Your task to perform on an android device: allow cookies in the chrome app Image 0: 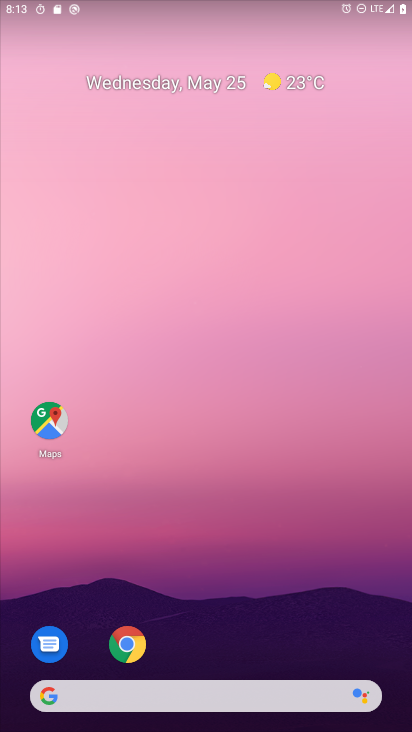
Step 0: drag from (380, 623) to (289, 174)
Your task to perform on an android device: allow cookies in the chrome app Image 1: 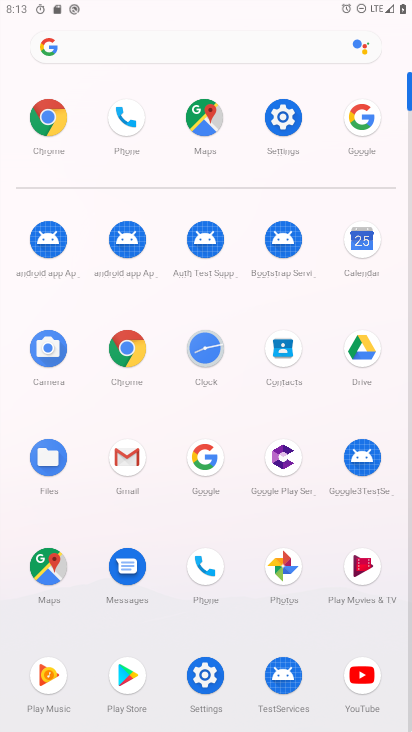
Step 1: click (119, 361)
Your task to perform on an android device: allow cookies in the chrome app Image 2: 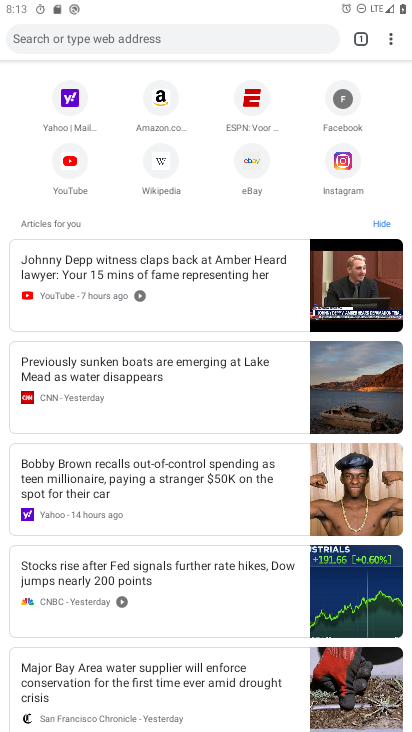
Step 2: click (394, 38)
Your task to perform on an android device: allow cookies in the chrome app Image 3: 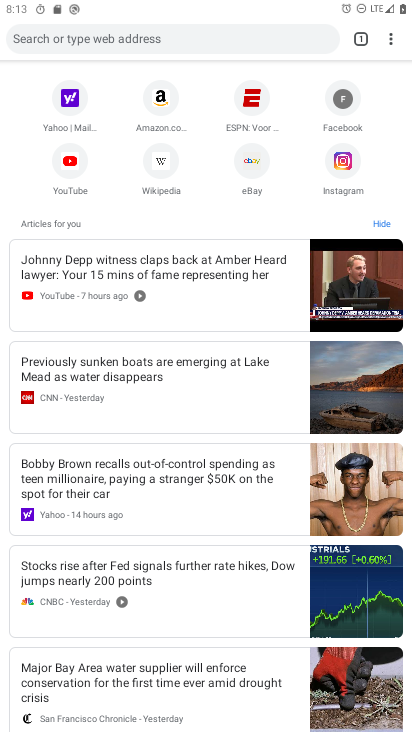
Step 3: click (391, 33)
Your task to perform on an android device: allow cookies in the chrome app Image 4: 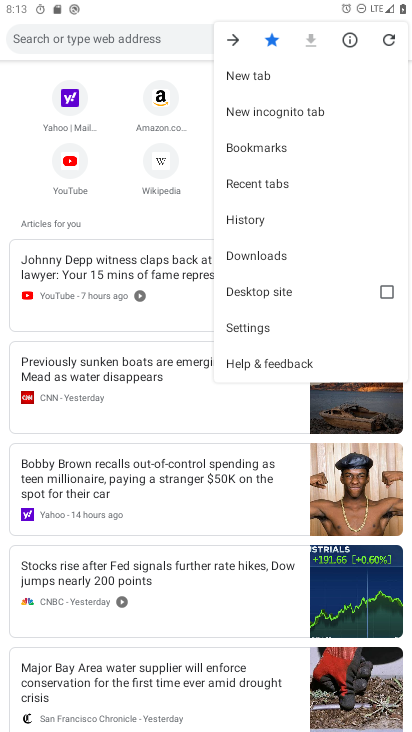
Step 4: click (268, 211)
Your task to perform on an android device: allow cookies in the chrome app Image 5: 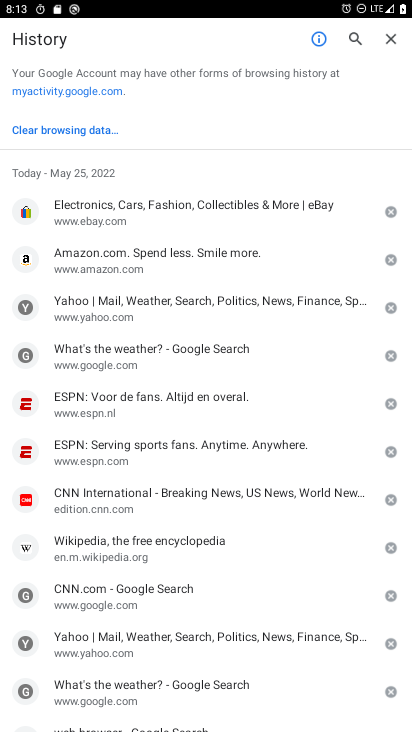
Step 5: click (86, 130)
Your task to perform on an android device: allow cookies in the chrome app Image 6: 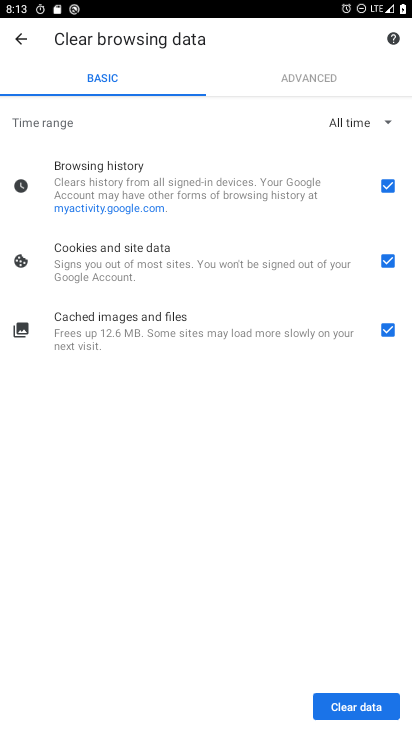
Step 6: task complete